Your task to perform on an android device: open the mobile data screen to see how much data has been used Image 0: 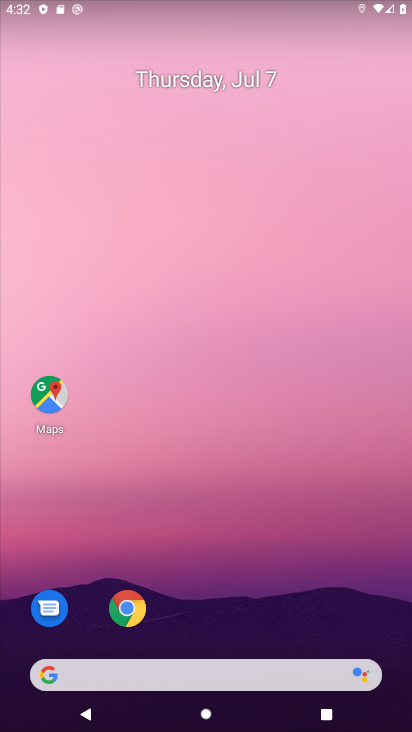
Step 0: press home button
Your task to perform on an android device: open the mobile data screen to see how much data has been used Image 1: 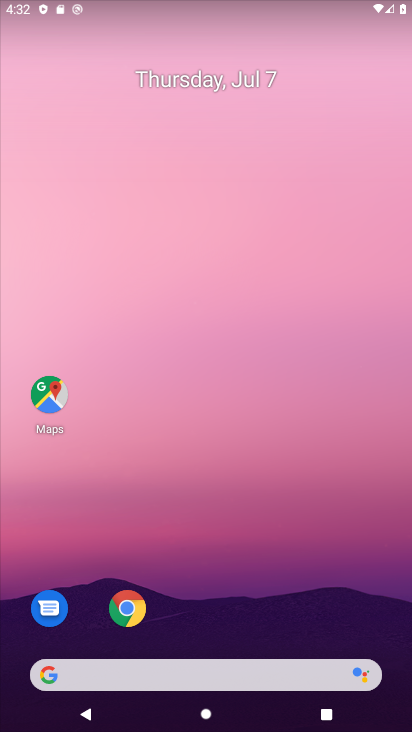
Step 1: press home button
Your task to perform on an android device: open the mobile data screen to see how much data has been used Image 2: 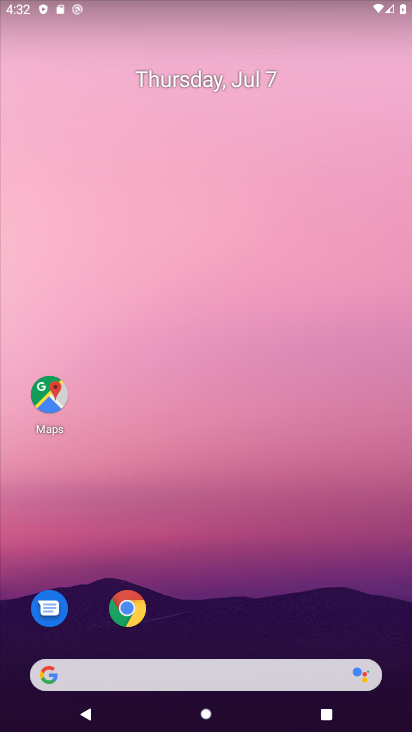
Step 2: drag from (220, 630) to (251, 92)
Your task to perform on an android device: open the mobile data screen to see how much data has been used Image 3: 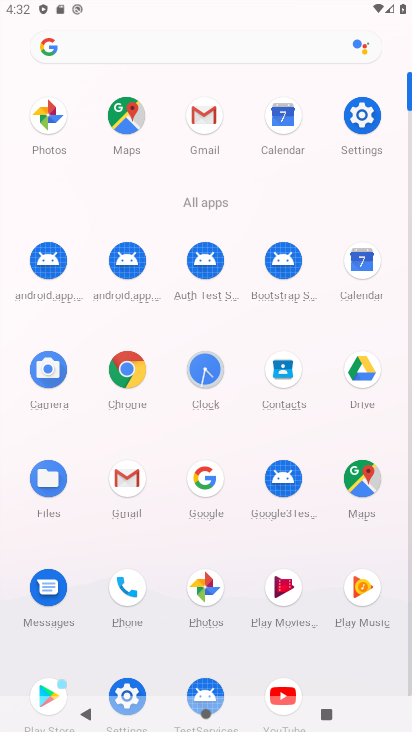
Step 3: click (355, 108)
Your task to perform on an android device: open the mobile data screen to see how much data has been used Image 4: 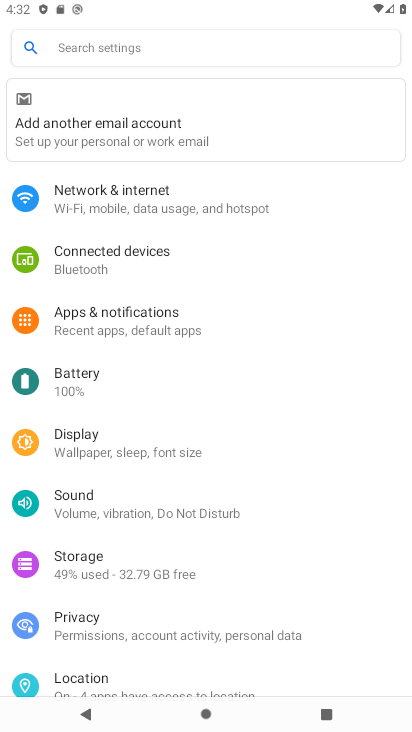
Step 4: click (88, 205)
Your task to perform on an android device: open the mobile data screen to see how much data has been used Image 5: 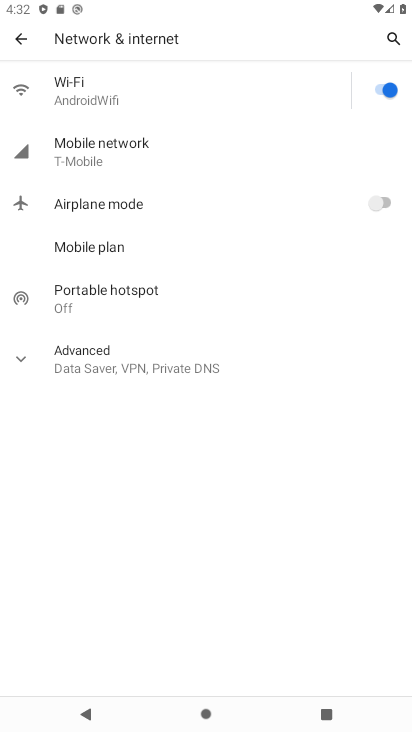
Step 5: click (124, 152)
Your task to perform on an android device: open the mobile data screen to see how much data has been used Image 6: 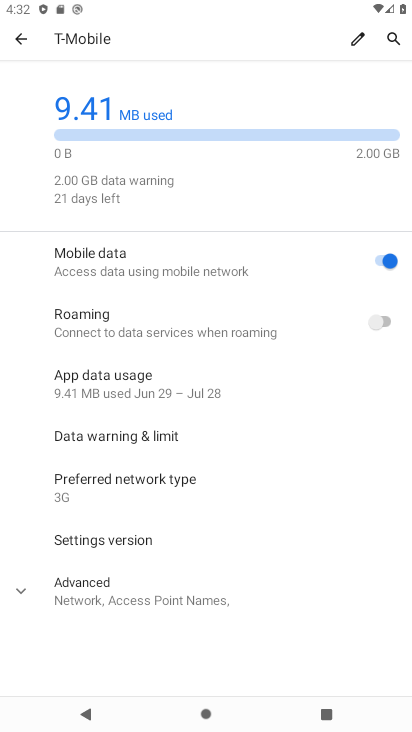
Step 6: click (122, 378)
Your task to perform on an android device: open the mobile data screen to see how much data has been used Image 7: 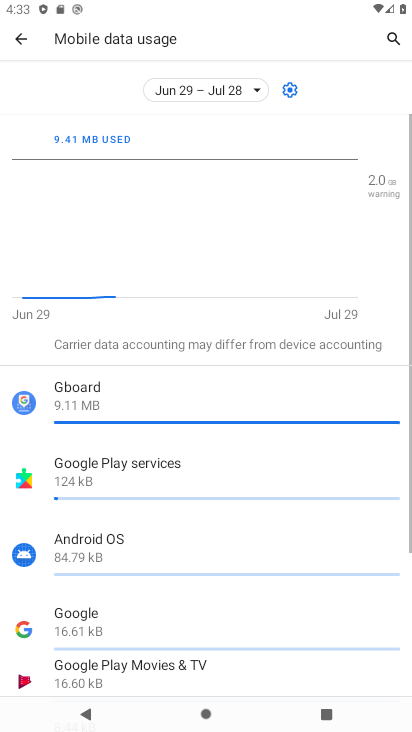
Step 7: task complete